Your task to perform on an android device: check storage Image 0: 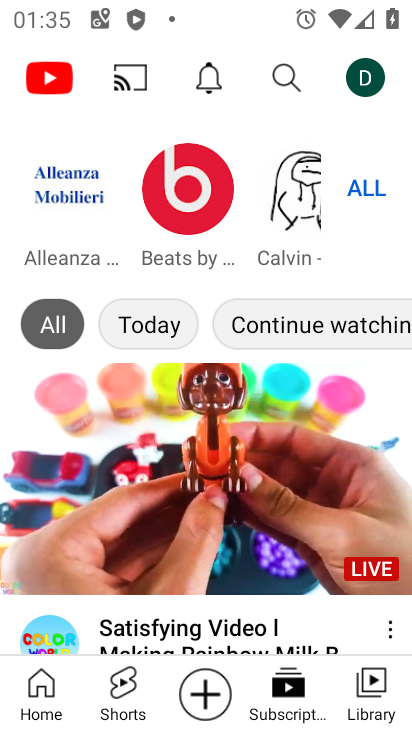
Step 0: press home button
Your task to perform on an android device: check storage Image 1: 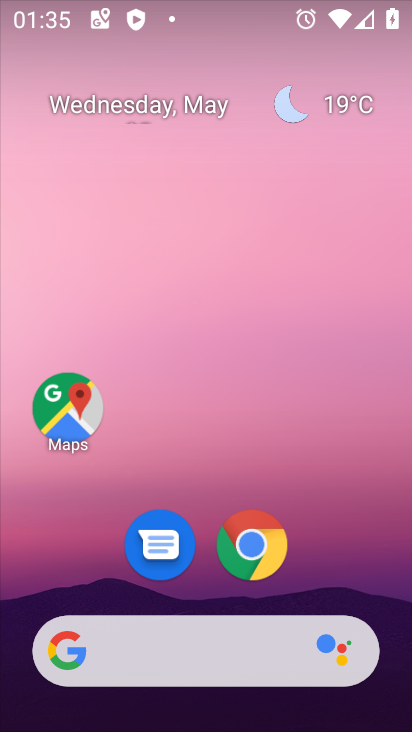
Step 1: drag from (298, 523) to (303, 52)
Your task to perform on an android device: check storage Image 2: 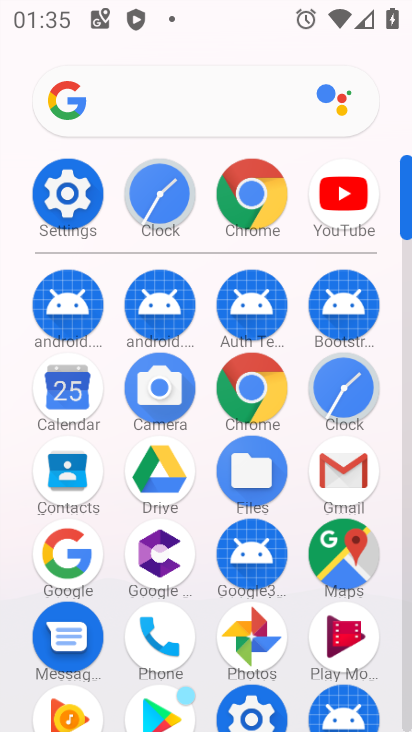
Step 2: click (62, 189)
Your task to perform on an android device: check storage Image 3: 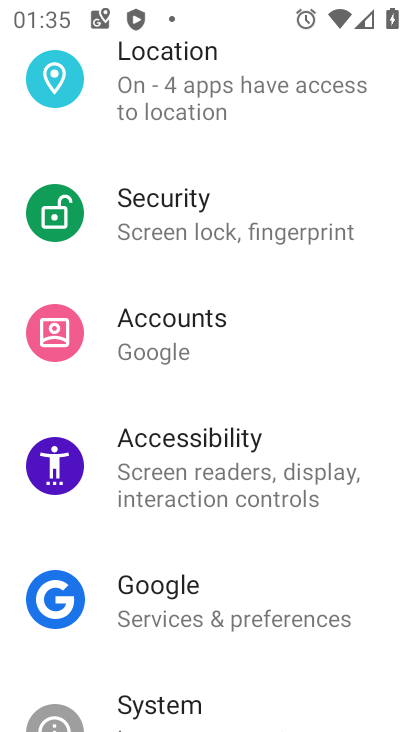
Step 3: drag from (334, 304) to (267, 667)
Your task to perform on an android device: check storage Image 4: 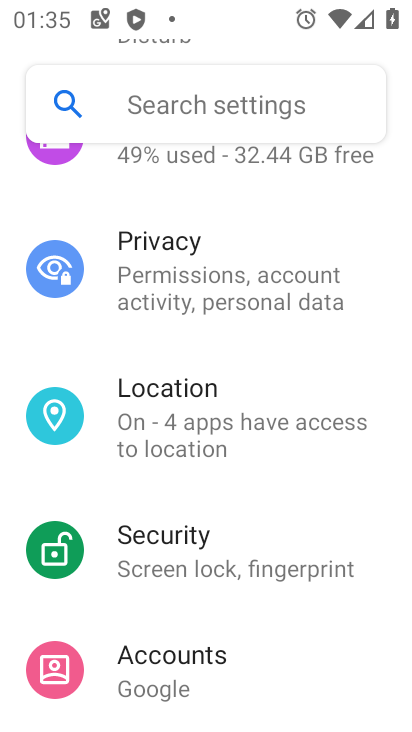
Step 4: drag from (236, 590) to (320, 197)
Your task to perform on an android device: check storage Image 5: 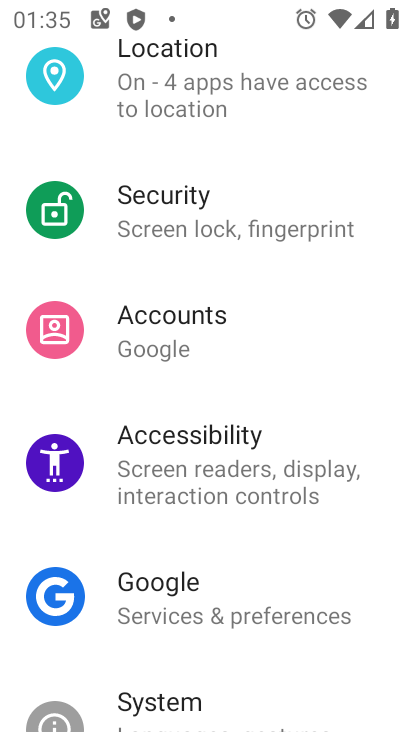
Step 5: drag from (269, 189) to (257, 652)
Your task to perform on an android device: check storage Image 6: 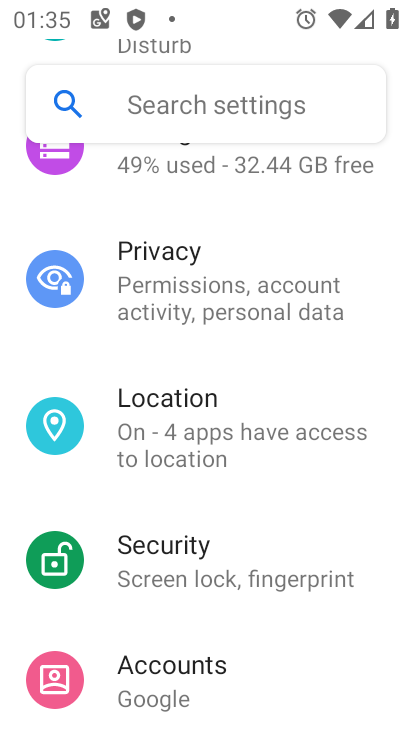
Step 6: drag from (265, 195) to (276, 596)
Your task to perform on an android device: check storage Image 7: 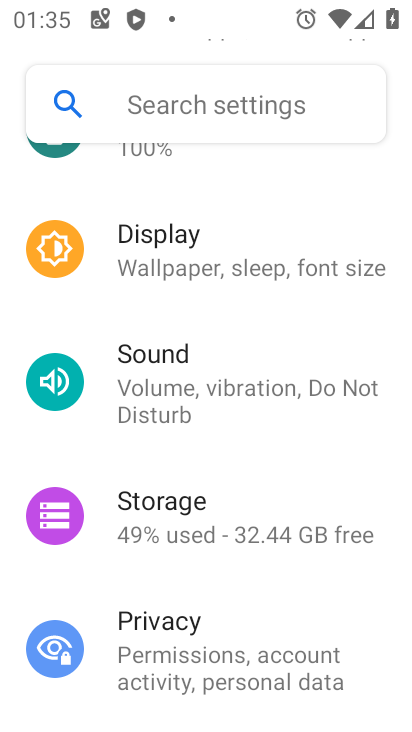
Step 7: drag from (233, 227) to (239, 567)
Your task to perform on an android device: check storage Image 8: 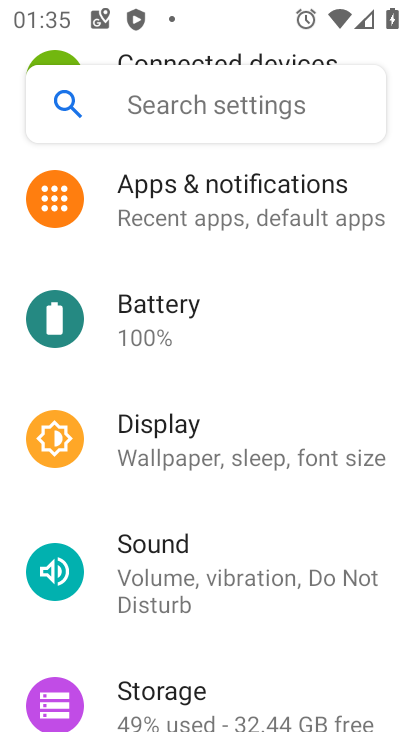
Step 8: click (187, 318)
Your task to perform on an android device: check storage Image 9: 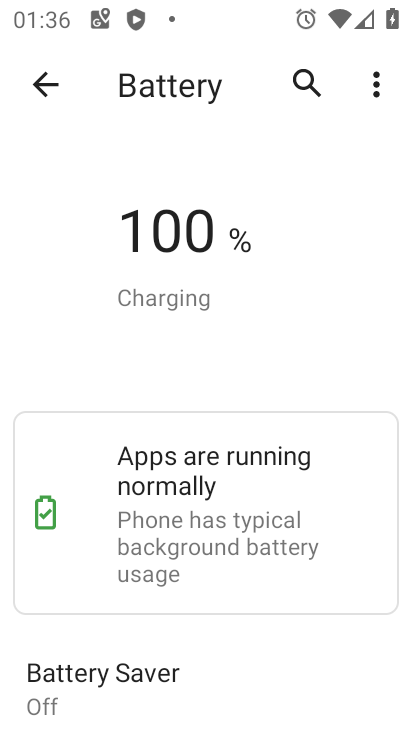
Step 9: click (46, 82)
Your task to perform on an android device: check storage Image 10: 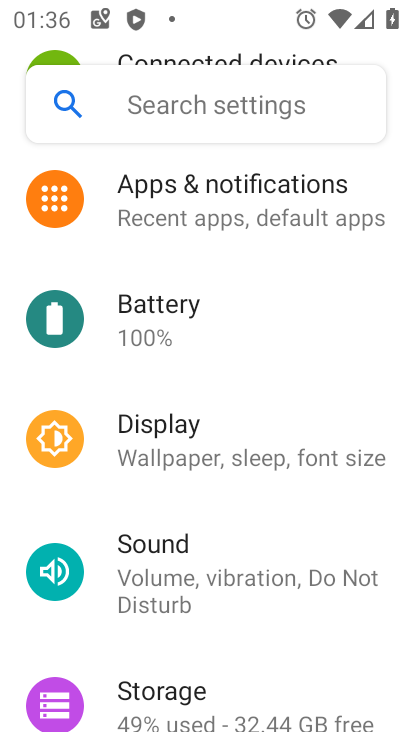
Step 10: click (180, 693)
Your task to perform on an android device: check storage Image 11: 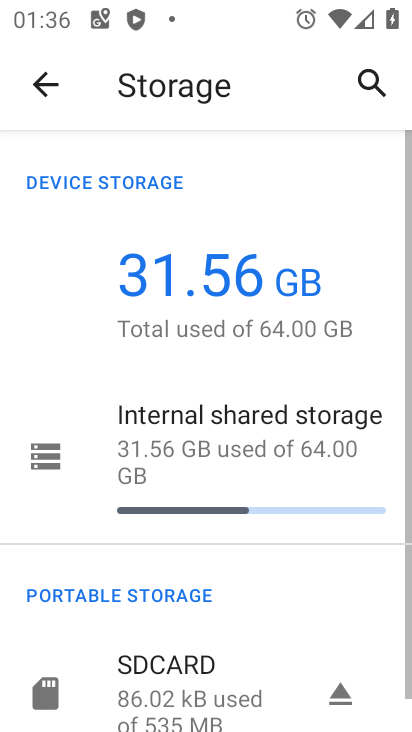
Step 11: task complete